Your task to perform on an android device: check google app version Image 0: 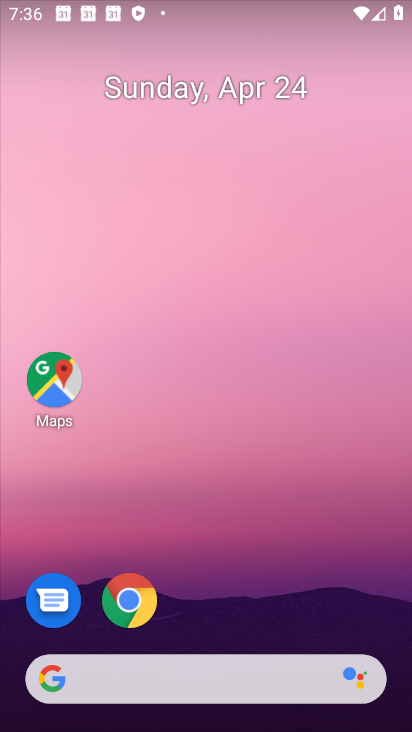
Step 0: drag from (356, 615) to (362, 33)
Your task to perform on an android device: check google app version Image 1: 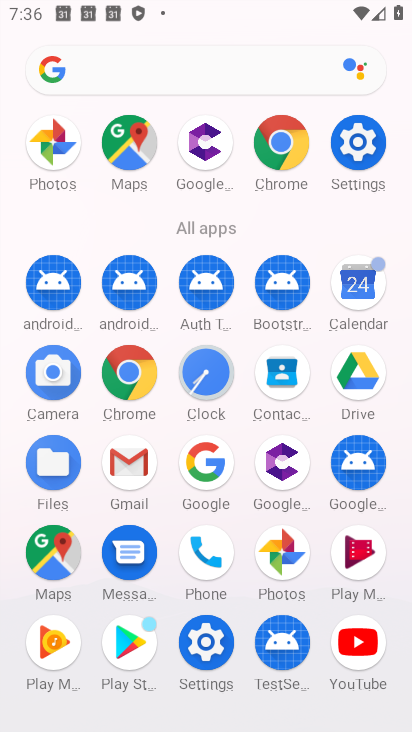
Step 1: click (218, 477)
Your task to perform on an android device: check google app version Image 2: 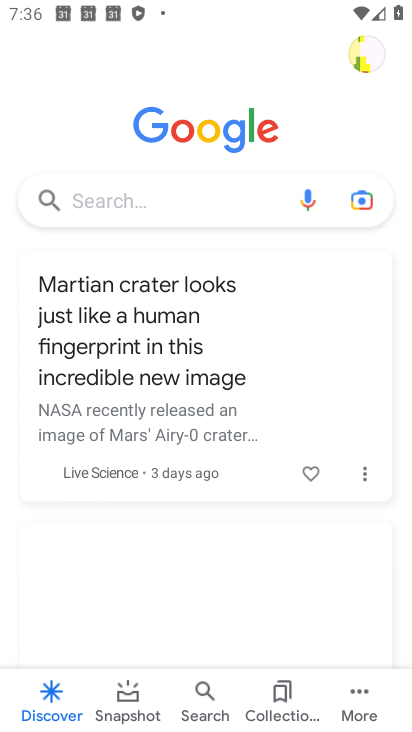
Step 2: click (362, 704)
Your task to perform on an android device: check google app version Image 3: 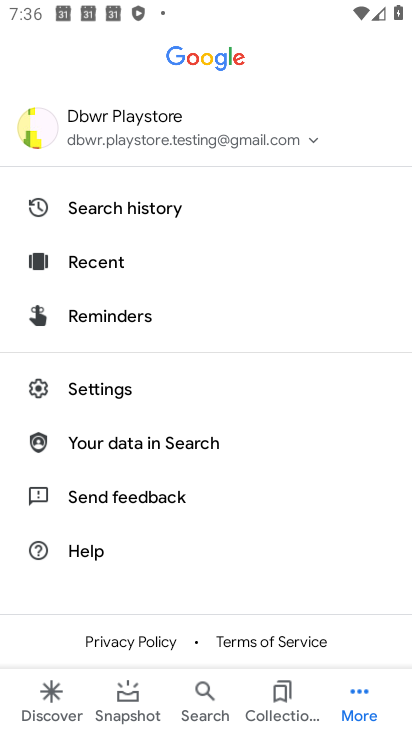
Step 3: click (136, 378)
Your task to perform on an android device: check google app version Image 4: 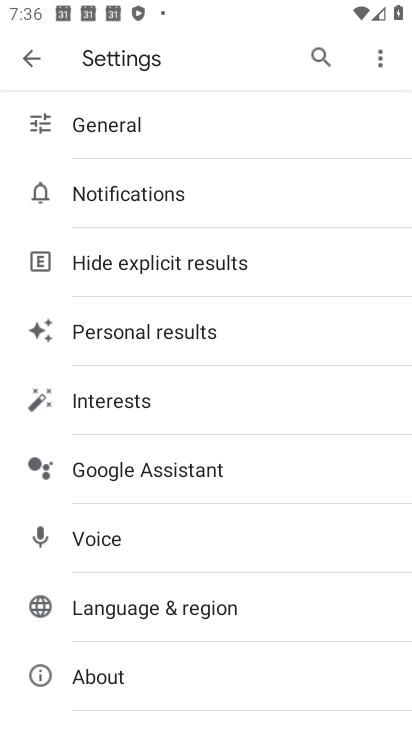
Step 4: click (271, 671)
Your task to perform on an android device: check google app version Image 5: 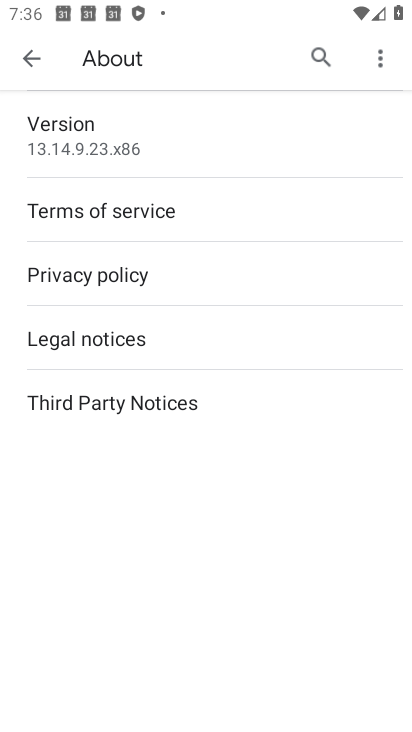
Step 5: task complete